Your task to perform on an android device: What is the recent news? Image 0: 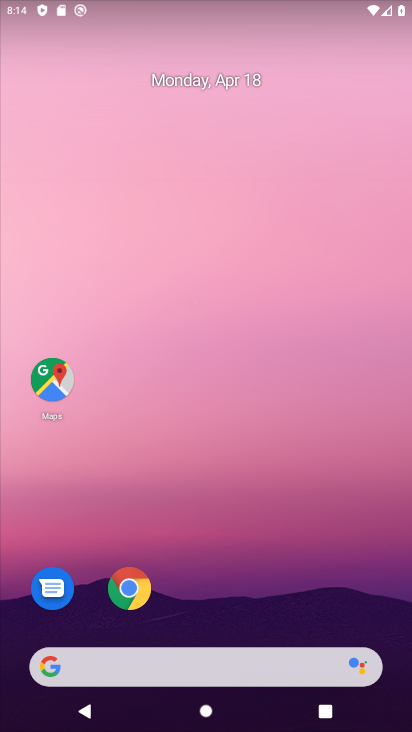
Step 0: click (130, 583)
Your task to perform on an android device: What is the recent news? Image 1: 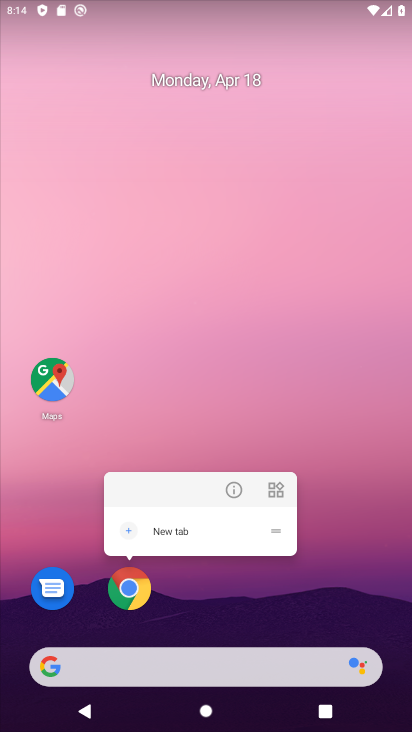
Step 1: click (130, 583)
Your task to perform on an android device: What is the recent news? Image 2: 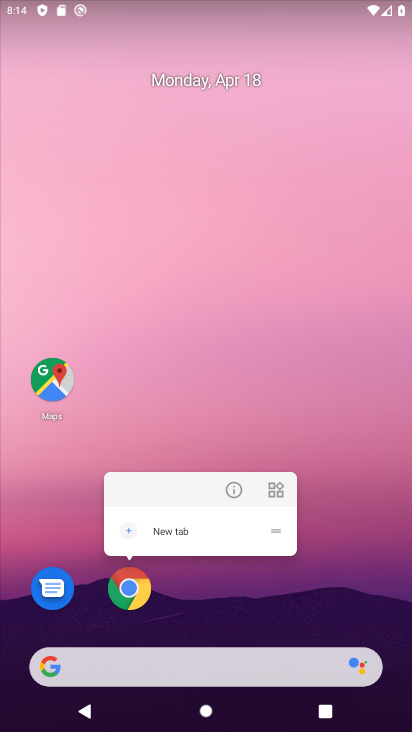
Step 2: click (131, 589)
Your task to perform on an android device: What is the recent news? Image 3: 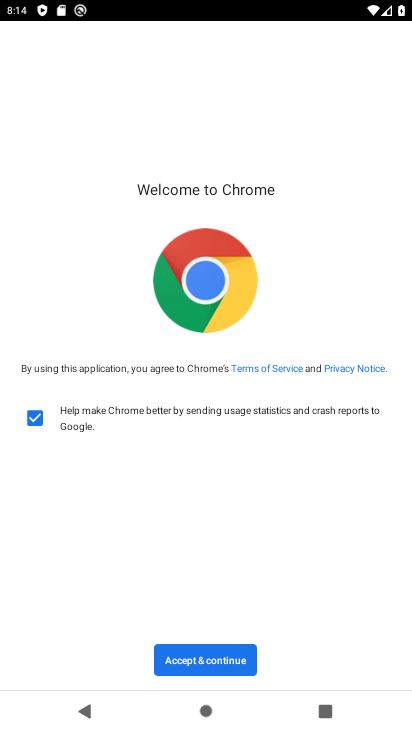
Step 3: click (188, 667)
Your task to perform on an android device: What is the recent news? Image 4: 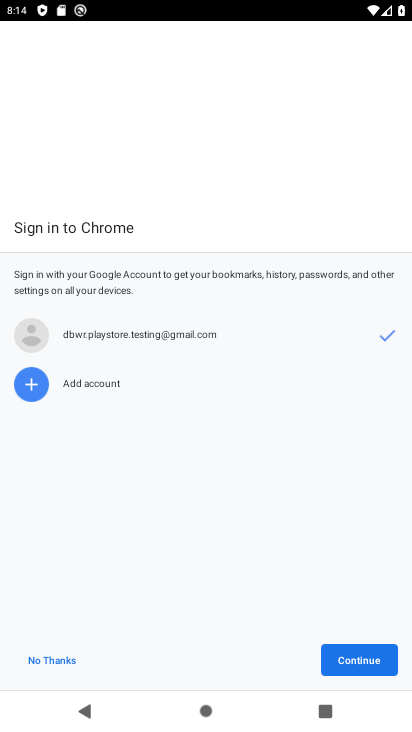
Step 4: click (369, 659)
Your task to perform on an android device: What is the recent news? Image 5: 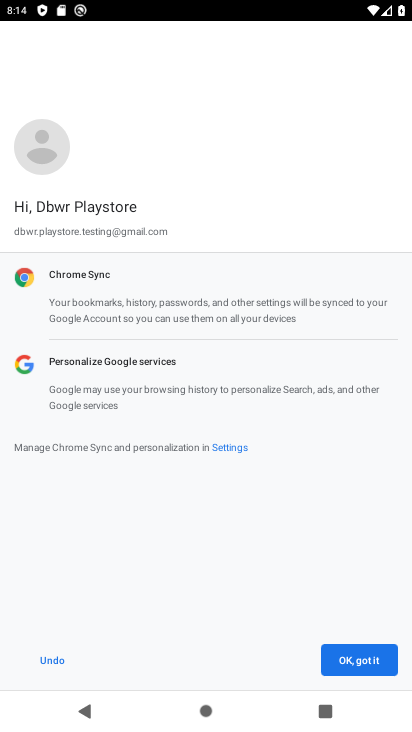
Step 5: click (369, 659)
Your task to perform on an android device: What is the recent news? Image 6: 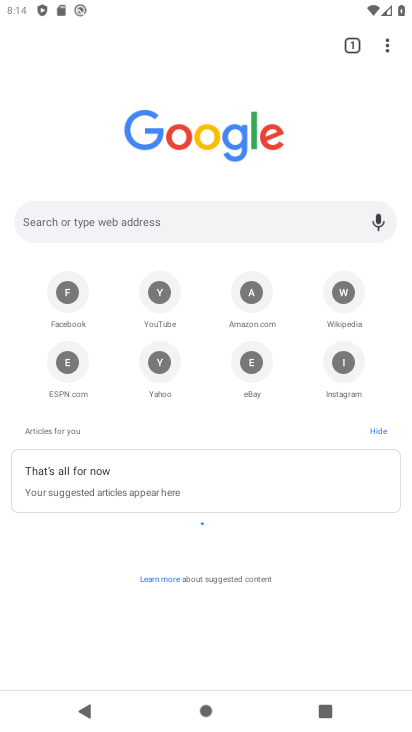
Step 6: click (159, 216)
Your task to perform on an android device: What is the recent news? Image 7: 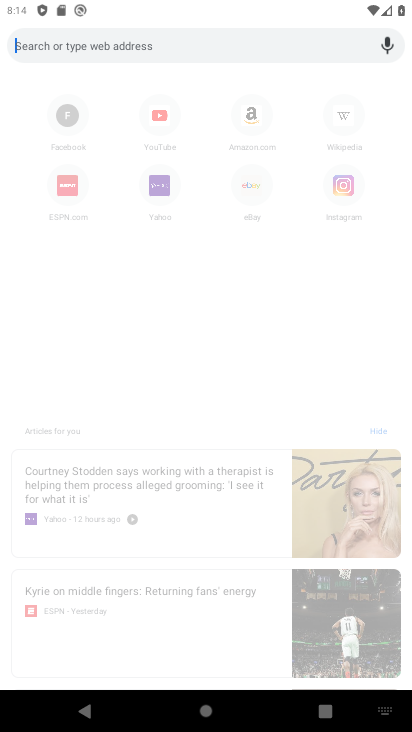
Step 7: type "what is the recent news"
Your task to perform on an android device: What is the recent news? Image 8: 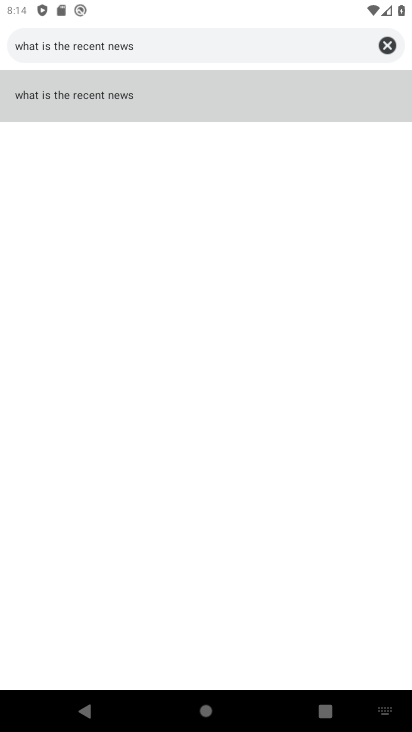
Step 8: click (86, 105)
Your task to perform on an android device: What is the recent news? Image 9: 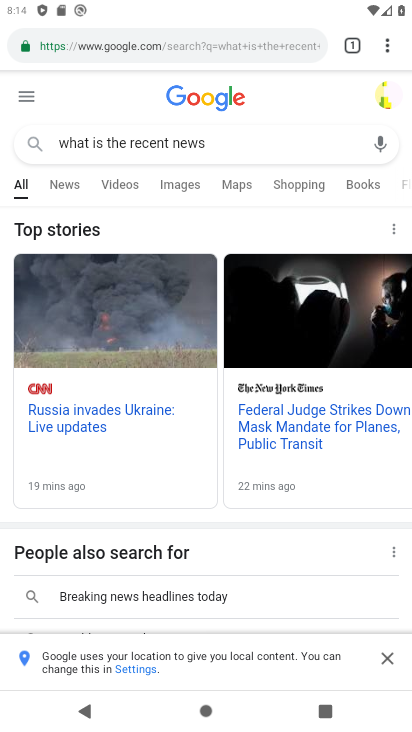
Step 9: click (63, 185)
Your task to perform on an android device: What is the recent news? Image 10: 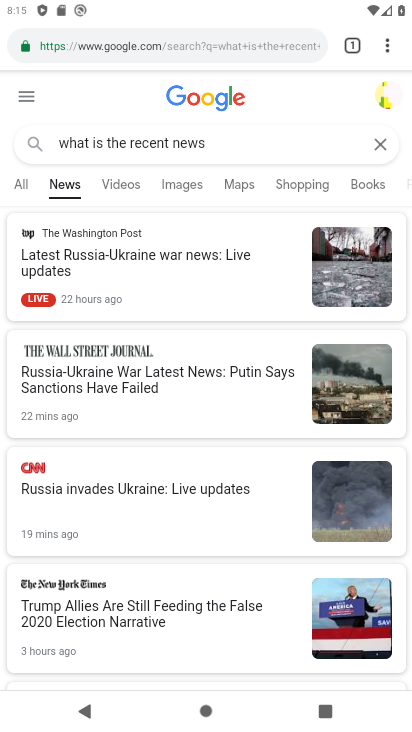
Step 10: task complete